Your task to perform on an android device: delete browsing data in the chrome app Image 0: 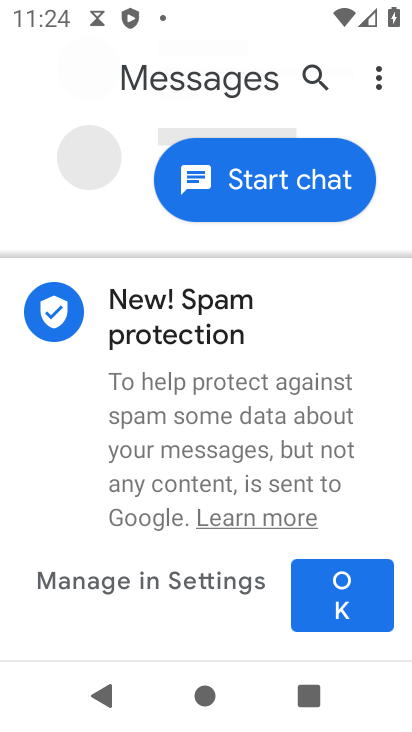
Step 0: press home button
Your task to perform on an android device: delete browsing data in the chrome app Image 1: 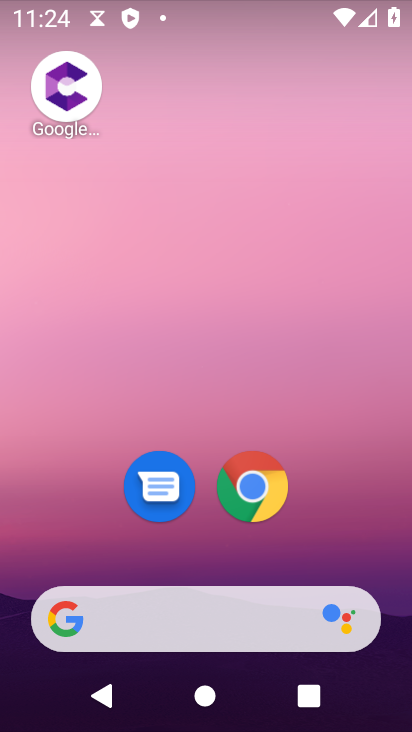
Step 1: click (234, 504)
Your task to perform on an android device: delete browsing data in the chrome app Image 2: 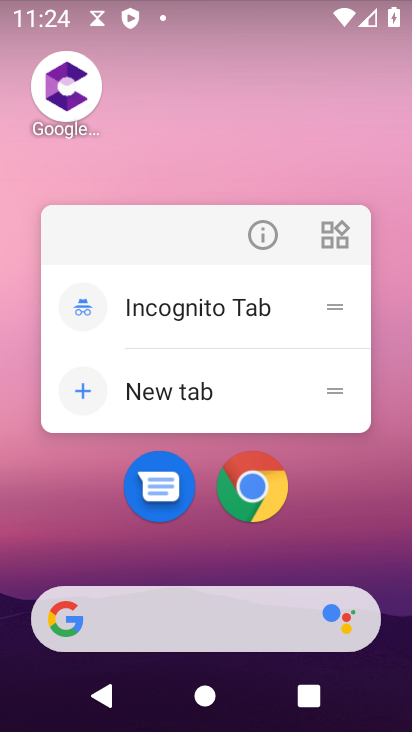
Step 2: click (257, 240)
Your task to perform on an android device: delete browsing data in the chrome app Image 3: 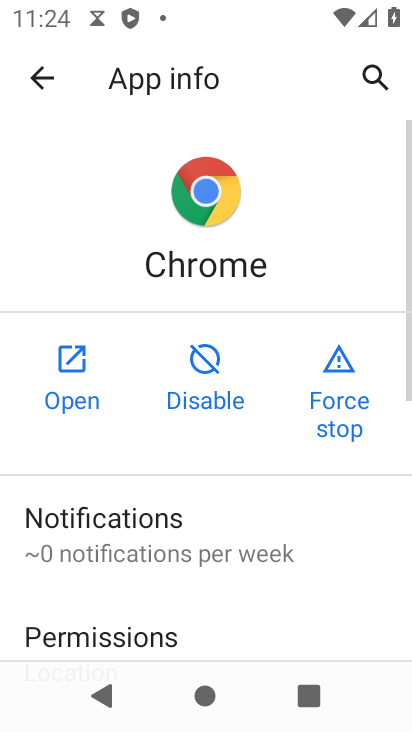
Step 3: click (96, 382)
Your task to perform on an android device: delete browsing data in the chrome app Image 4: 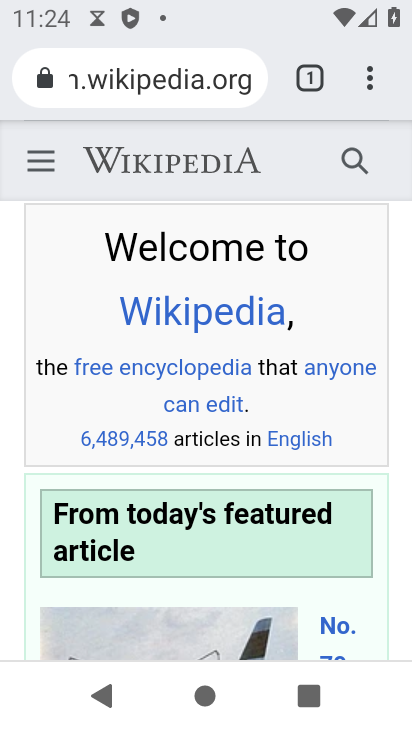
Step 4: click (373, 84)
Your task to perform on an android device: delete browsing data in the chrome app Image 5: 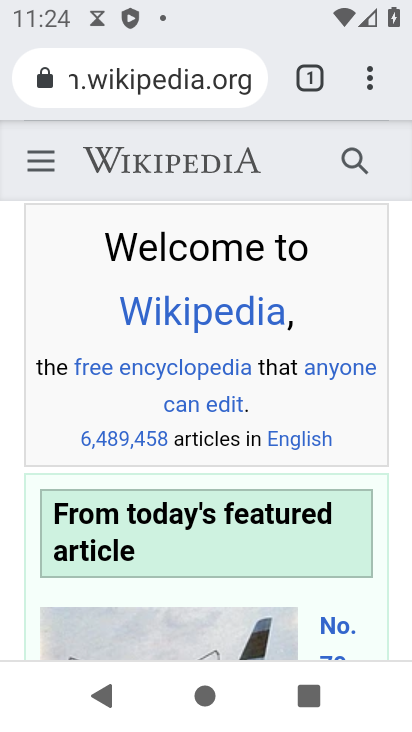
Step 5: click (376, 85)
Your task to perform on an android device: delete browsing data in the chrome app Image 6: 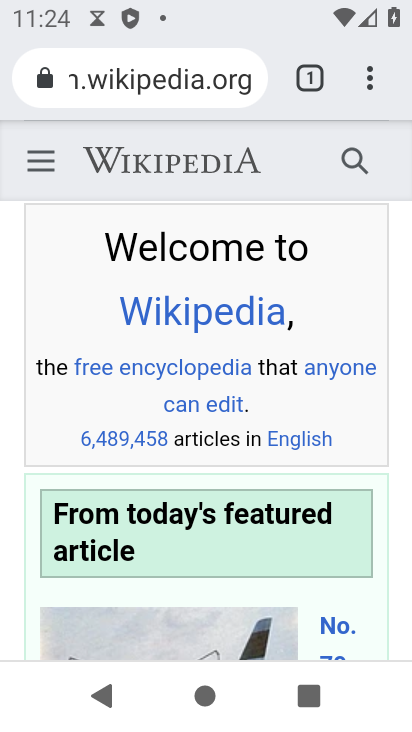
Step 6: click (372, 91)
Your task to perform on an android device: delete browsing data in the chrome app Image 7: 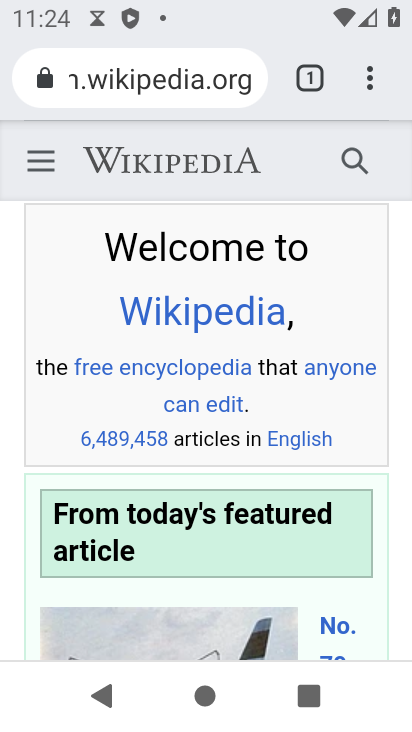
Step 7: click (368, 78)
Your task to perform on an android device: delete browsing data in the chrome app Image 8: 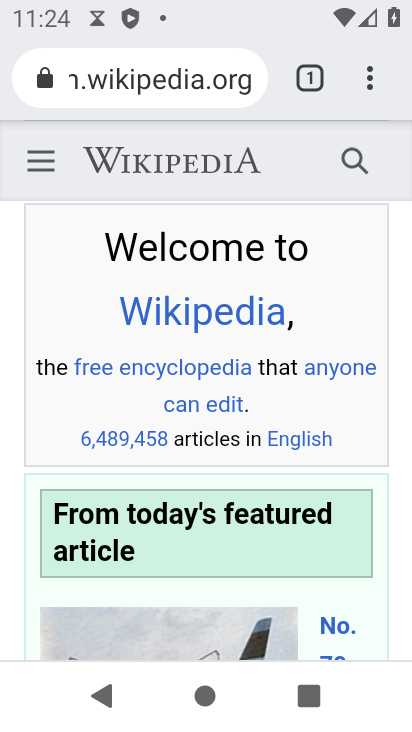
Step 8: click (372, 82)
Your task to perform on an android device: delete browsing data in the chrome app Image 9: 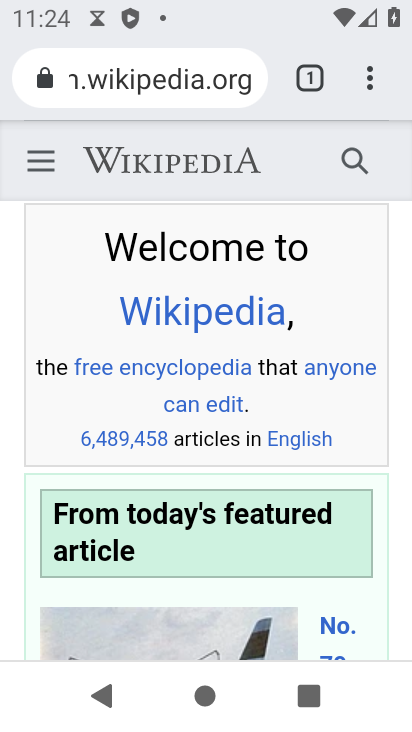
Step 9: click (369, 86)
Your task to perform on an android device: delete browsing data in the chrome app Image 10: 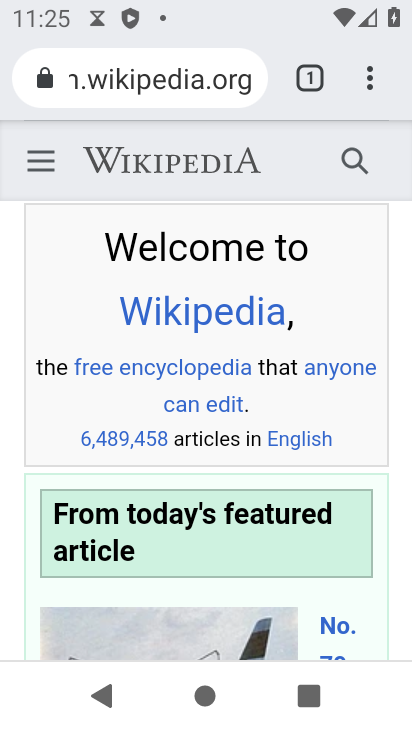
Step 10: click (365, 96)
Your task to perform on an android device: delete browsing data in the chrome app Image 11: 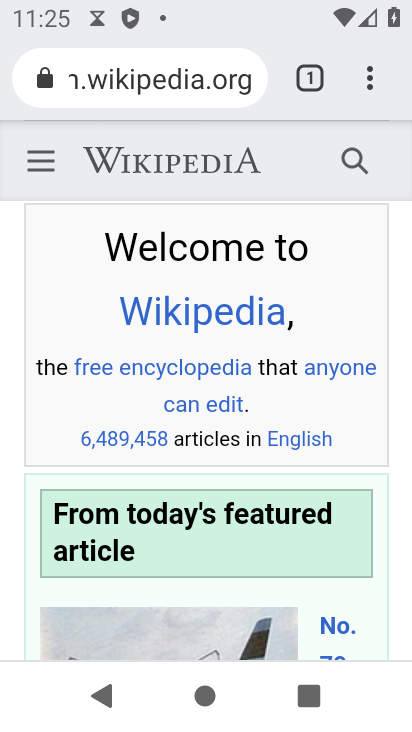
Step 11: click (368, 84)
Your task to perform on an android device: delete browsing data in the chrome app Image 12: 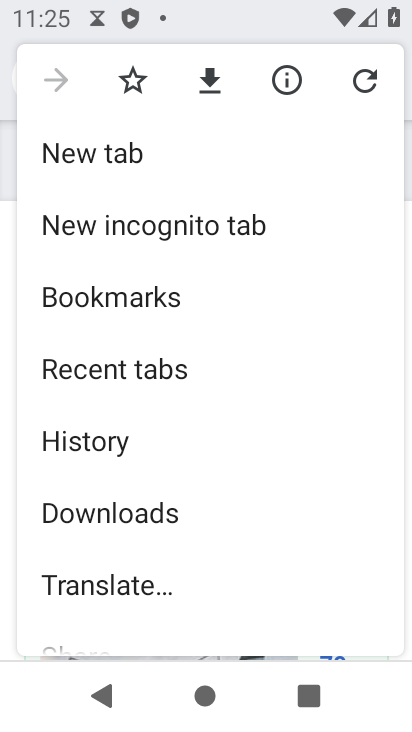
Step 12: click (155, 433)
Your task to perform on an android device: delete browsing data in the chrome app Image 13: 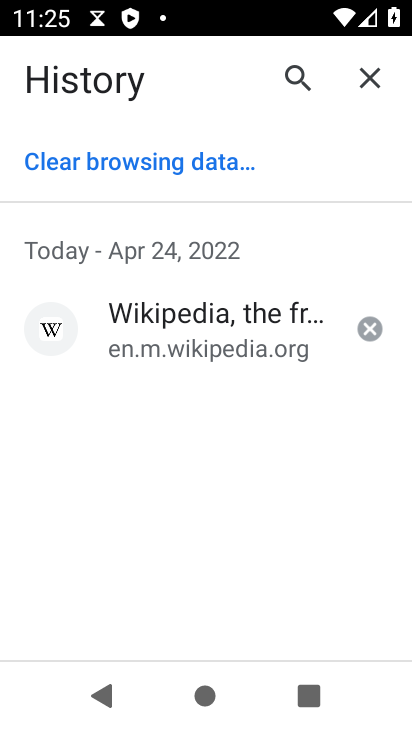
Step 13: click (225, 170)
Your task to perform on an android device: delete browsing data in the chrome app Image 14: 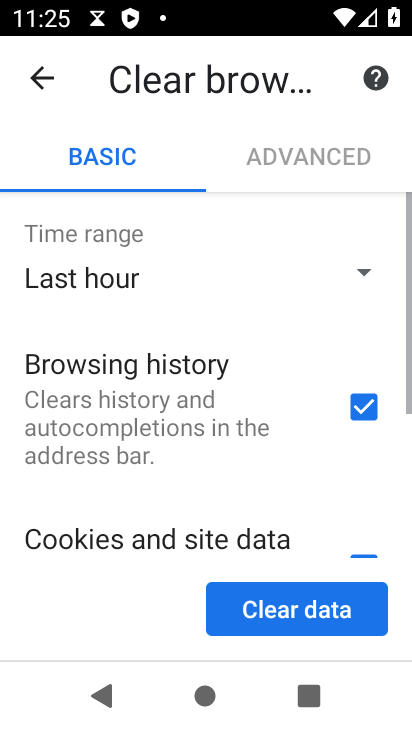
Step 14: click (312, 612)
Your task to perform on an android device: delete browsing data in the chrome app Image 15: 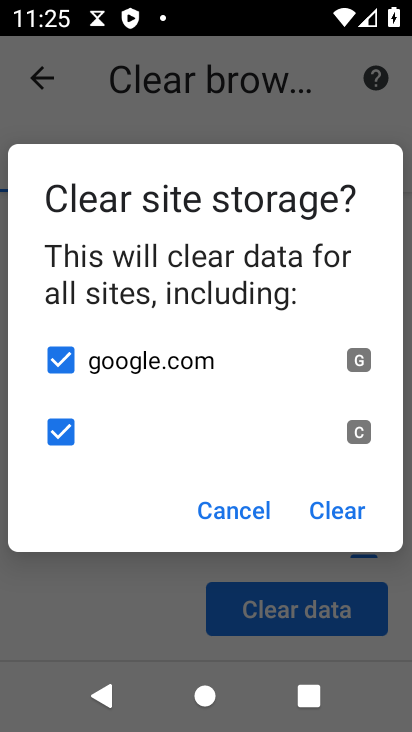
Step 15: click (356, 518)
Your task to perform on an android device: delete browsing data in the chrome app Image 16: 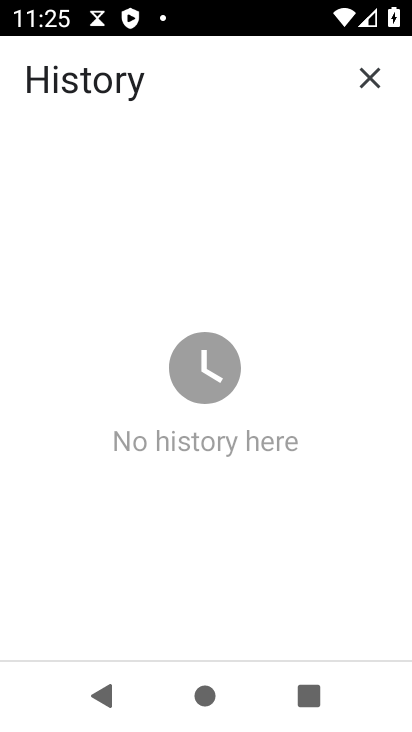
Step 16: task complete